Your task to perform on an android device: install app "Adobe Acrobat Reader: Edit PDF" Image 0: 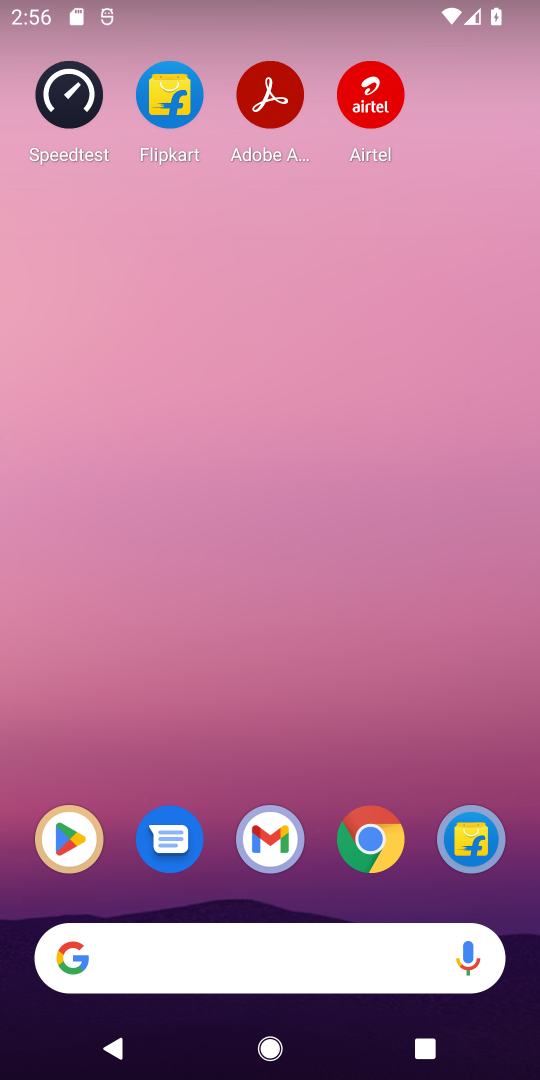
Step 0: task complete